Your task to perform on an android device: open app "Google Play services" Image 0: 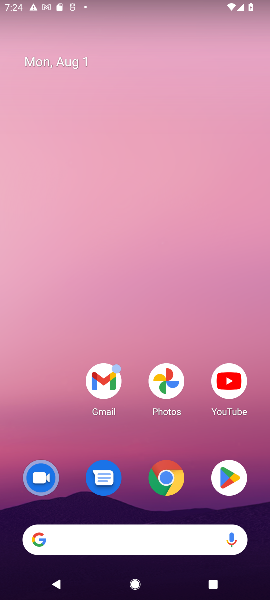
Step 0: press home button
Your task to perform on an android device: open app "Google Play services" Image 1: 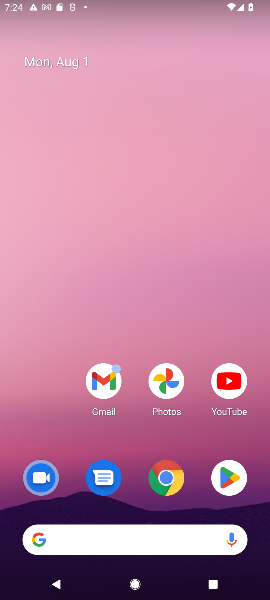
Step 1: click (232, 486)
Your task to perform on an android device: open app "Google Play services" Image 2: 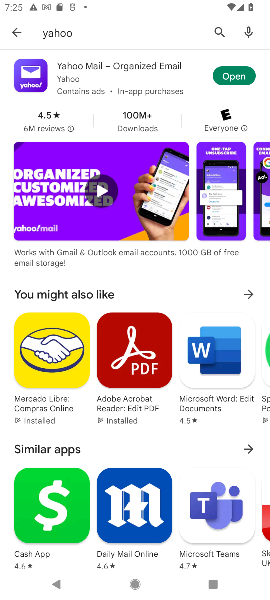
Step 2: click (212, 34)
Your task to perform on an android device: open app "Google Play services" Image 3: 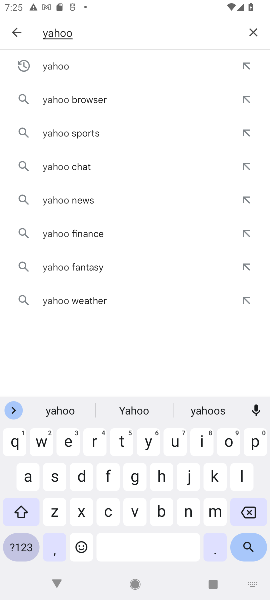
Step 3: click (253, 27)
Your task to perform on an android device: open app "Google Play services" Image 4: 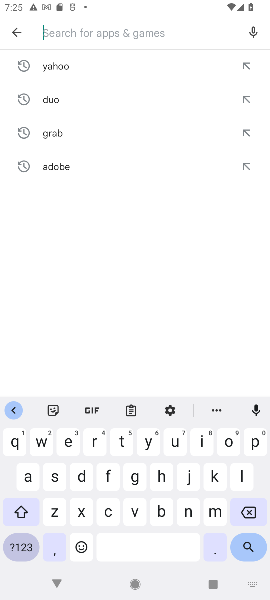
Step 4: type "google play services"
Your task to perform on an android device: open app "Google Play services" Image 5: 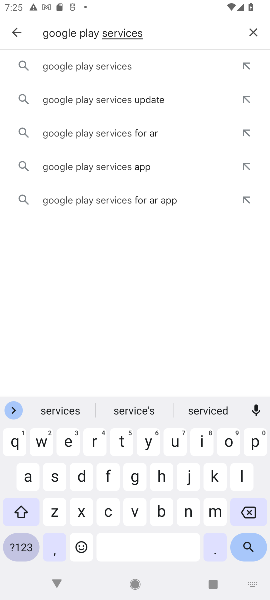
Step 5: click (143, 75)
Your task to perform on an android device: open app "Google Play services" Image 6: 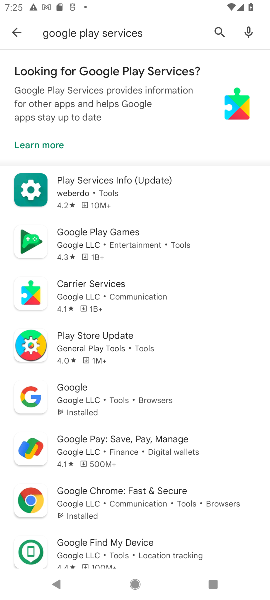
Step 6: click (112, 181)
Your task to perform on an android device: open app "Google Play services" Image 7: 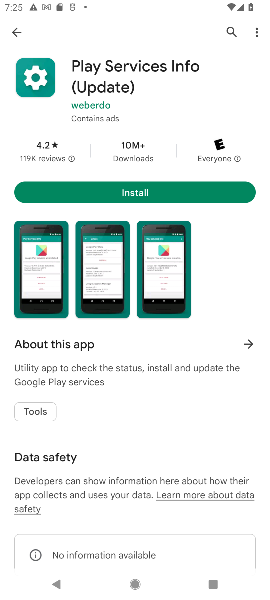
Step 7: task complete